Your task to perform on an android device: Open Chrome and go to the settings page Image 0: 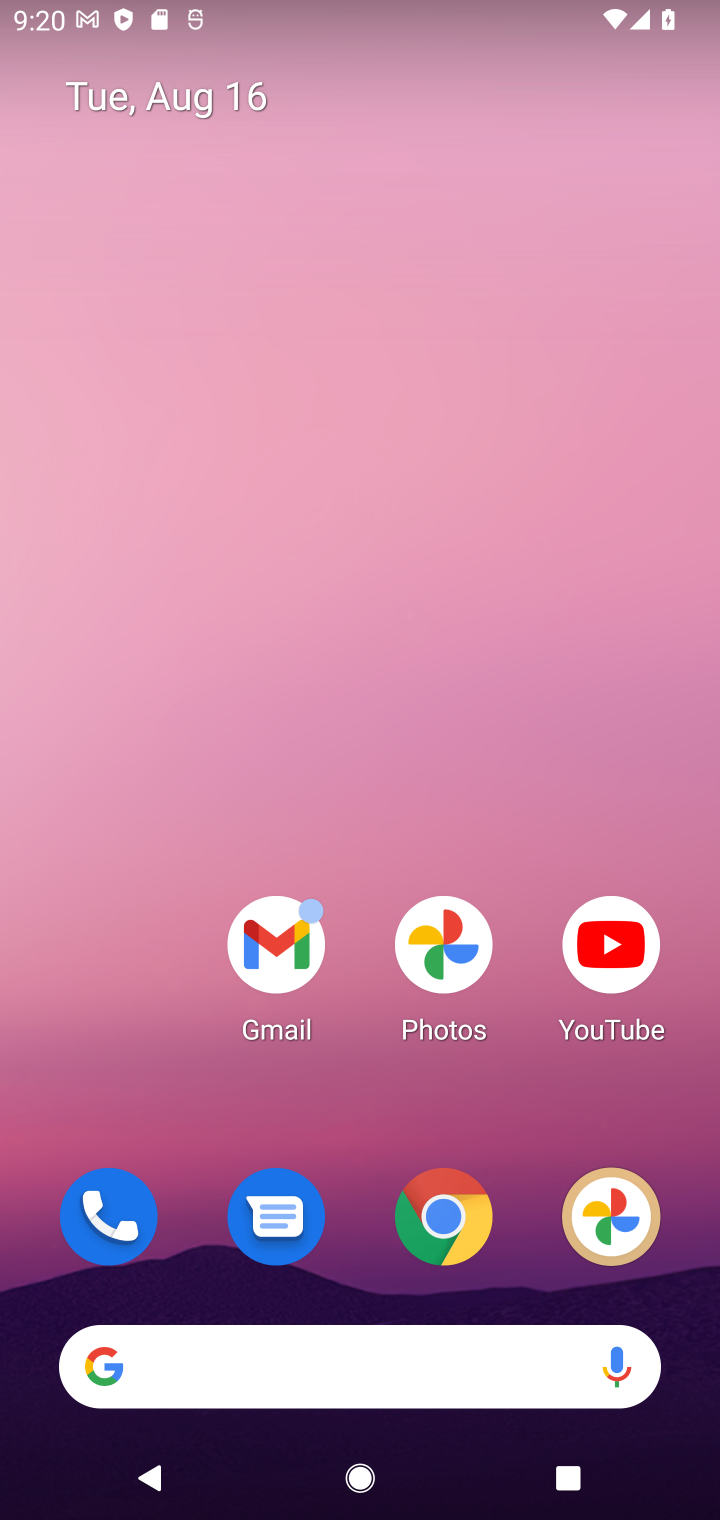
Step 0: click (433, 1218)
Your task to perform on an android device: Open Chrome and go to the settings page Image 1: 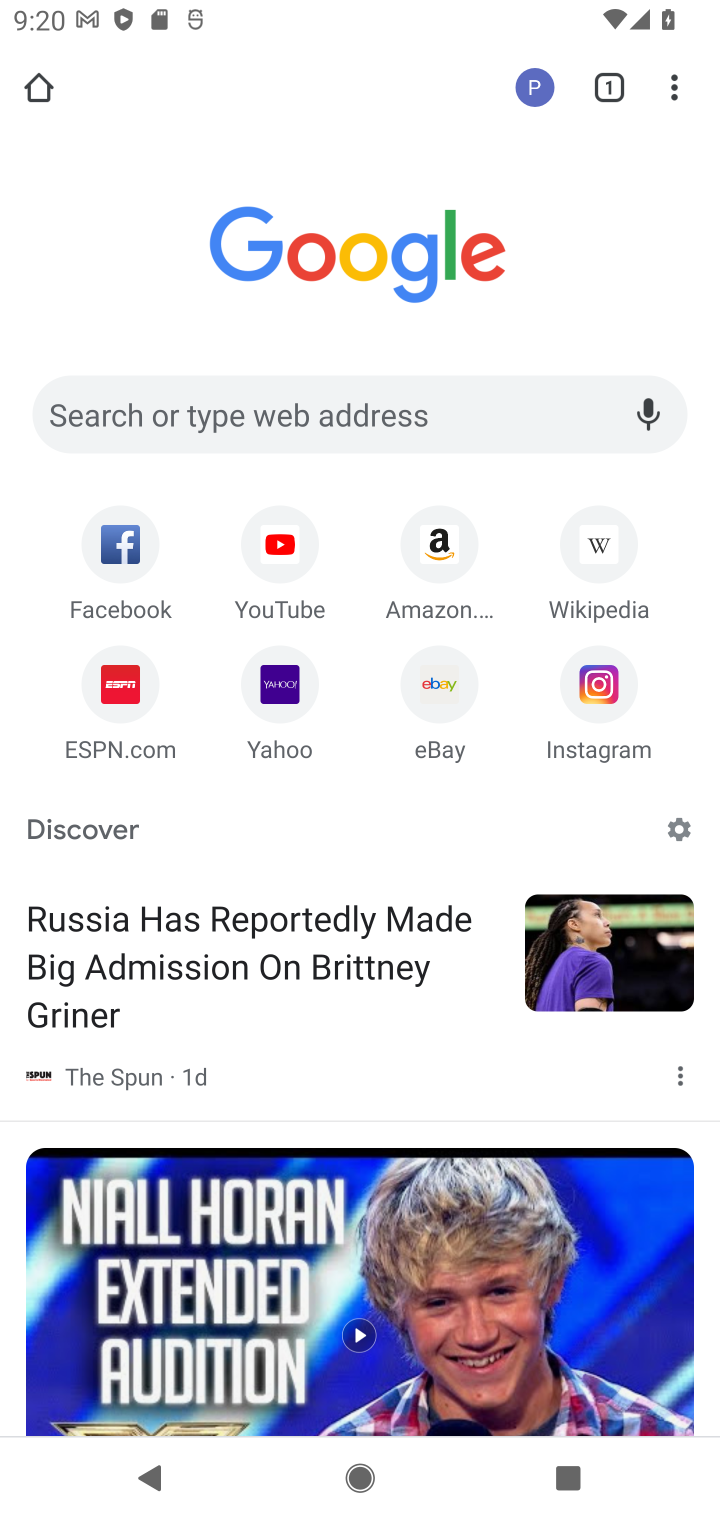
Step 1: click (676, 91)
Your task to perform on an android device: Open Chrome and go to the settings page Image 2: 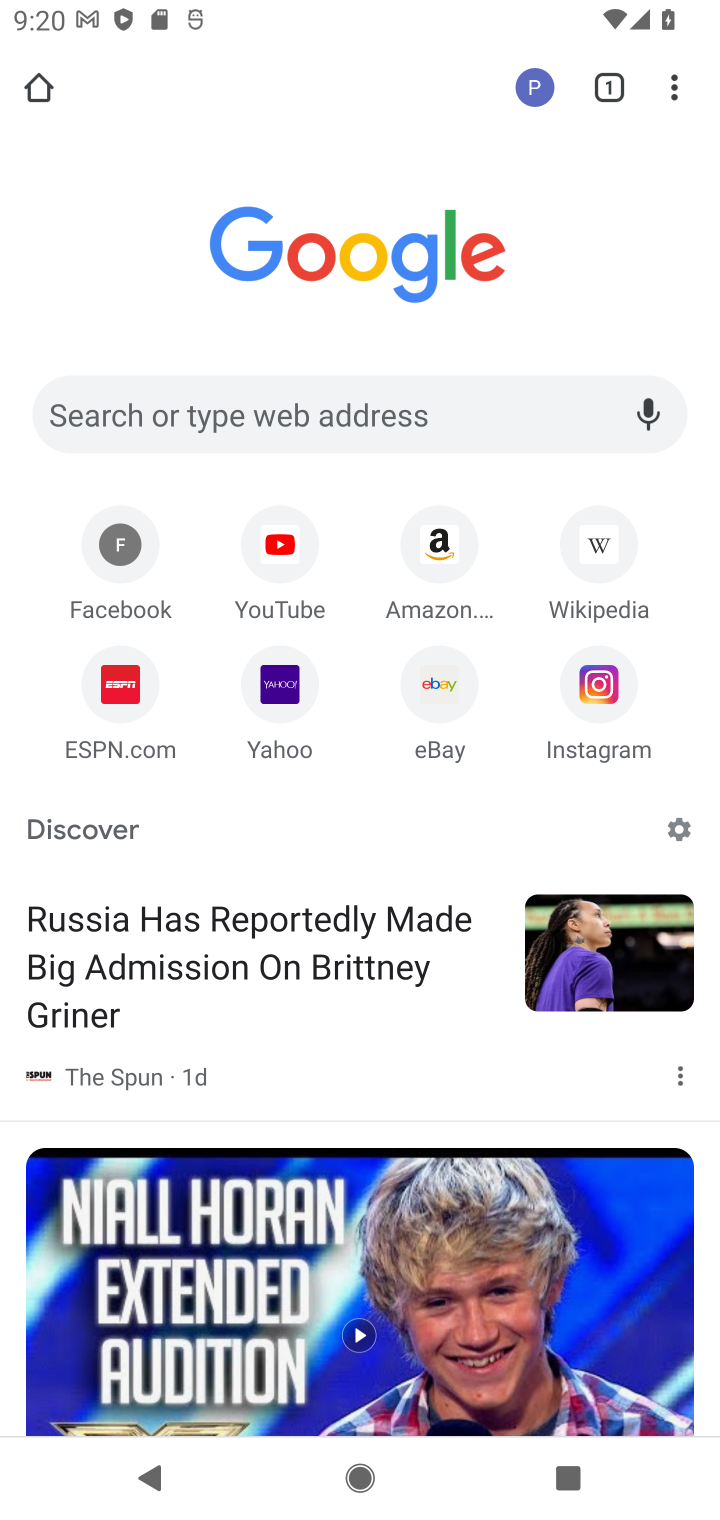
Step 2: task complete